Your task to perform on an android device: Open ESPN.com Image 0: 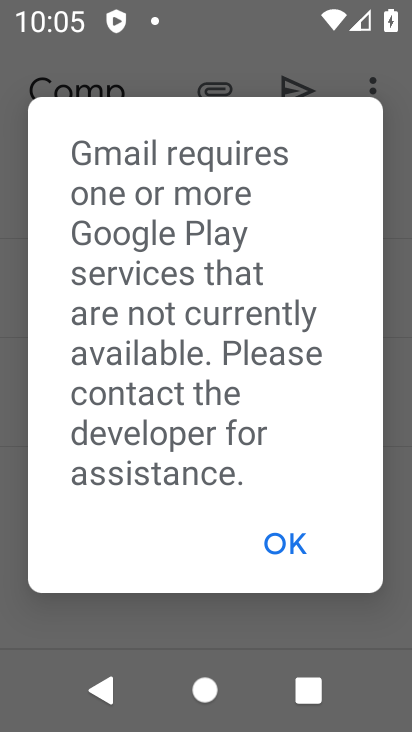
Step 0: press home button
Your task to perform on an android device: Open ESPN.com Image 1: 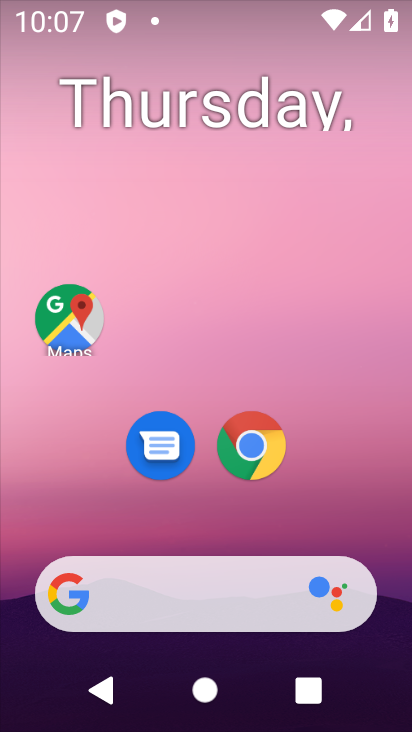
Step 1: click (240, 443)
Your task to perform on an android device: Open ESPN.com Image 2: 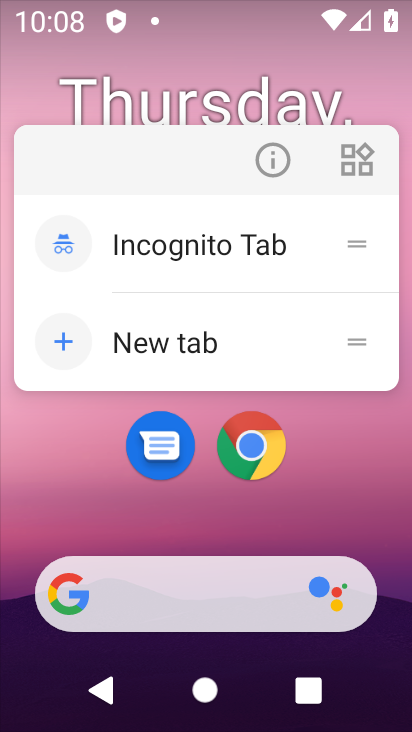
Step 2: click (240, 443)
Your task to perform on an android device: Open ESPN.com Image 3: 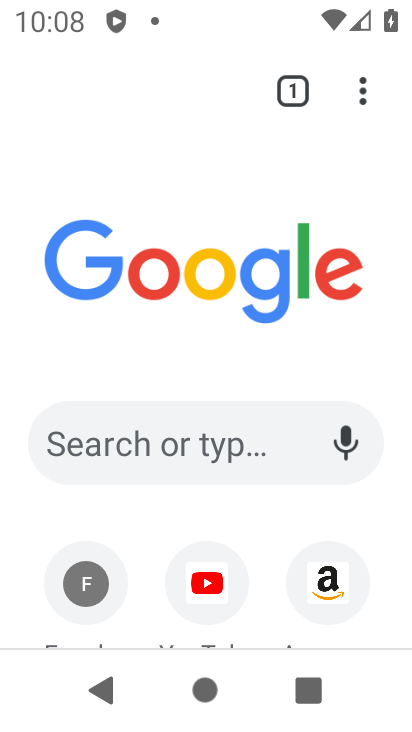
Step 3: click (215, 425)
Your task to perform on an android device: Open ESPN.com Image 4: 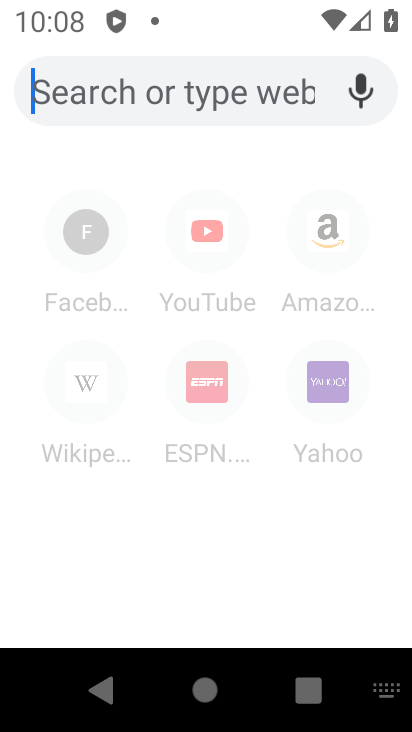
Step 4: type "espn.com"
Your task to perform on an android device: Open ESPN.com Image 5: 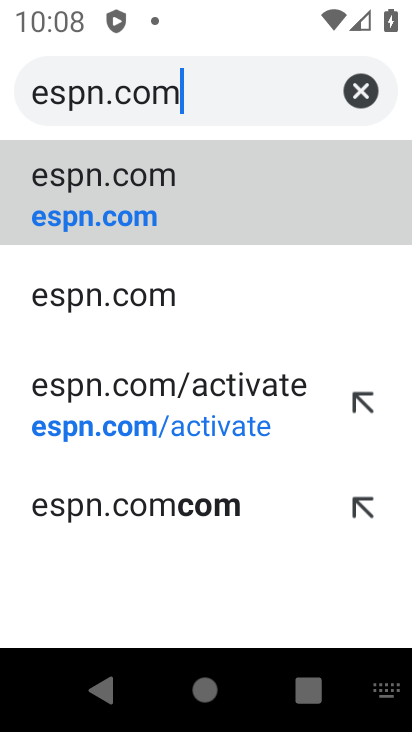
Step 5: click (248, 227)
Your task to perform on an android device: Open ESPN.com Image 6: 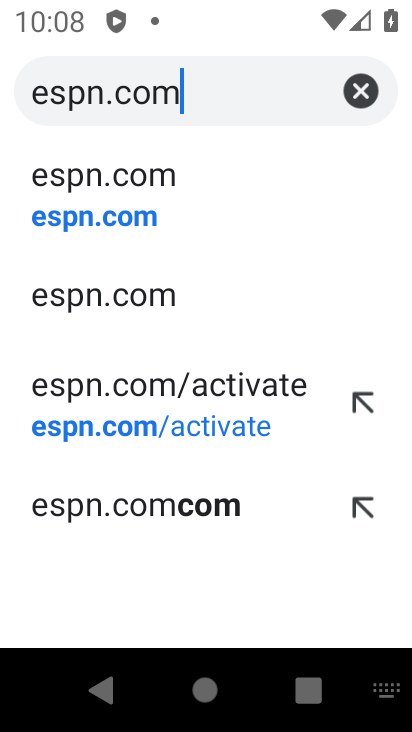
Step 6: click (195, 209)
Your task to perform on an android device: Open ESPN.com Image 7: 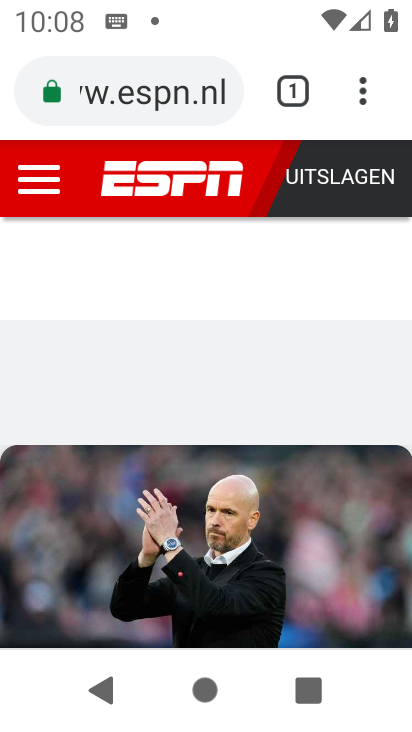
Step 7: task complete